Your task to perform on an android device: Go to Google maps Image 0: 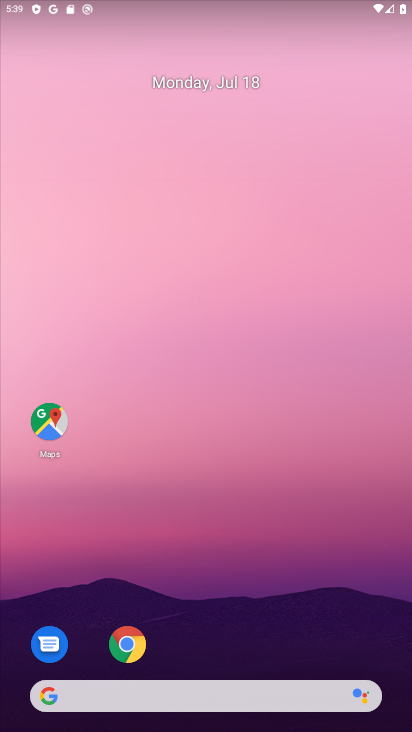
Step 0: press home button
Your task to perform on an android device: Go to Google maps Image 1: 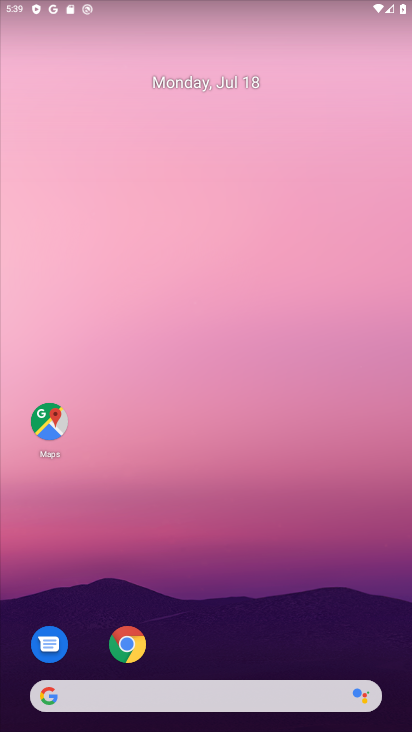
Step 1: click (53, 414)
Your task to perform on an android device: Go to Google maps Image 2: 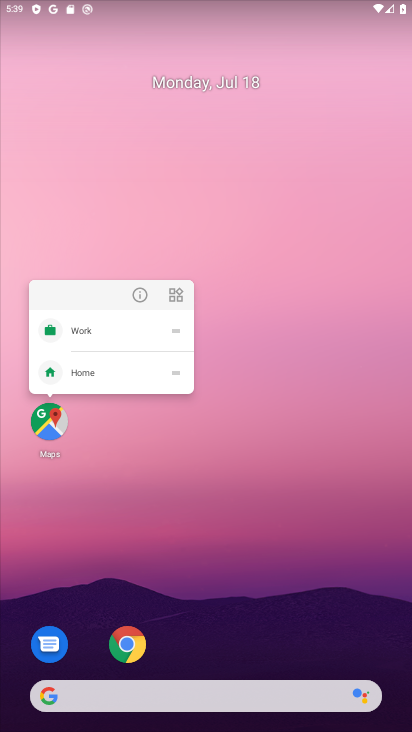
Step 2: click (50, 418)
Your task to perform on an android device: Go to Google maps Image 3: 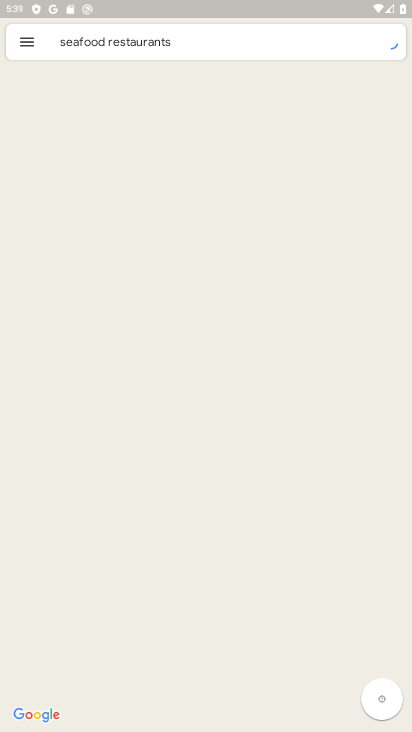
Step 3: press back button
Your task to perform on an android device: Go to Google maps Image 4: 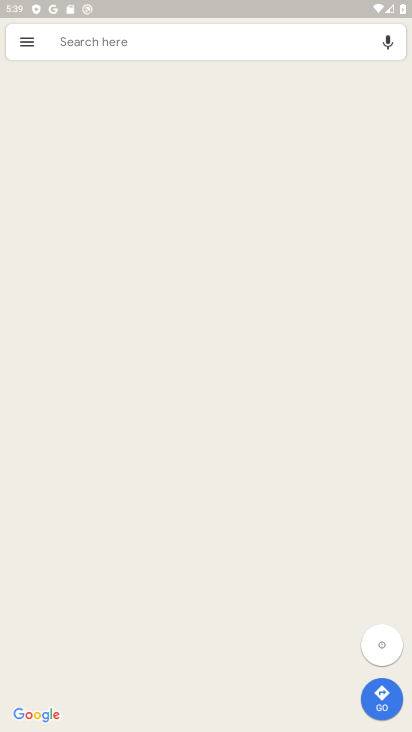
Step 4: click (389, 695)
Your task to perform on an android device: Go to Google maps Image 5: 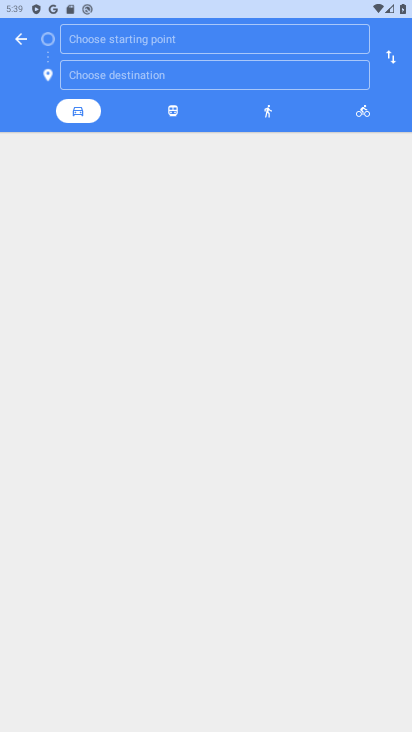
Step 5: task complete